Your task to perform on an android device: open app "Adobe Acrobat Reader" Image 0: 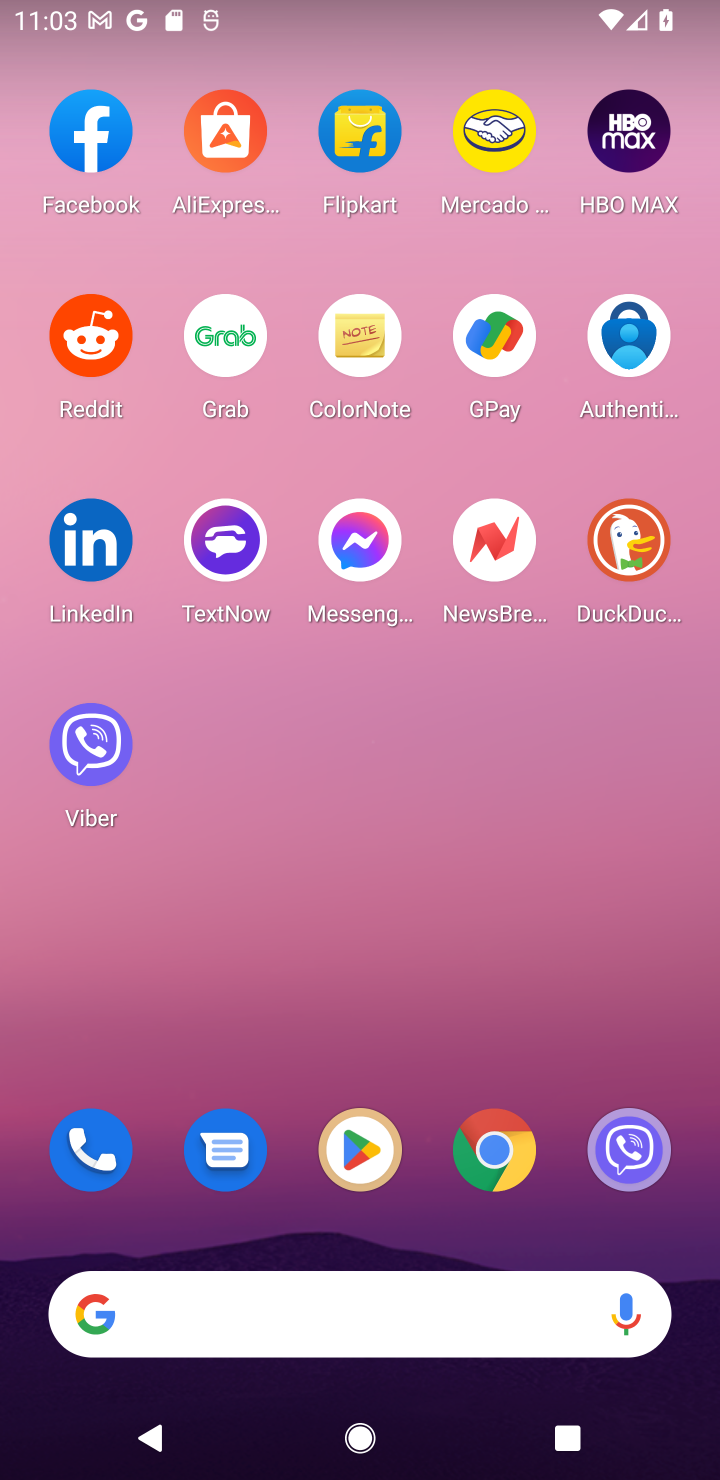
Step 0: click (358, 1100)
Your task to perform on an android device: open app "Adobe Acrobat Reader" Image 1: 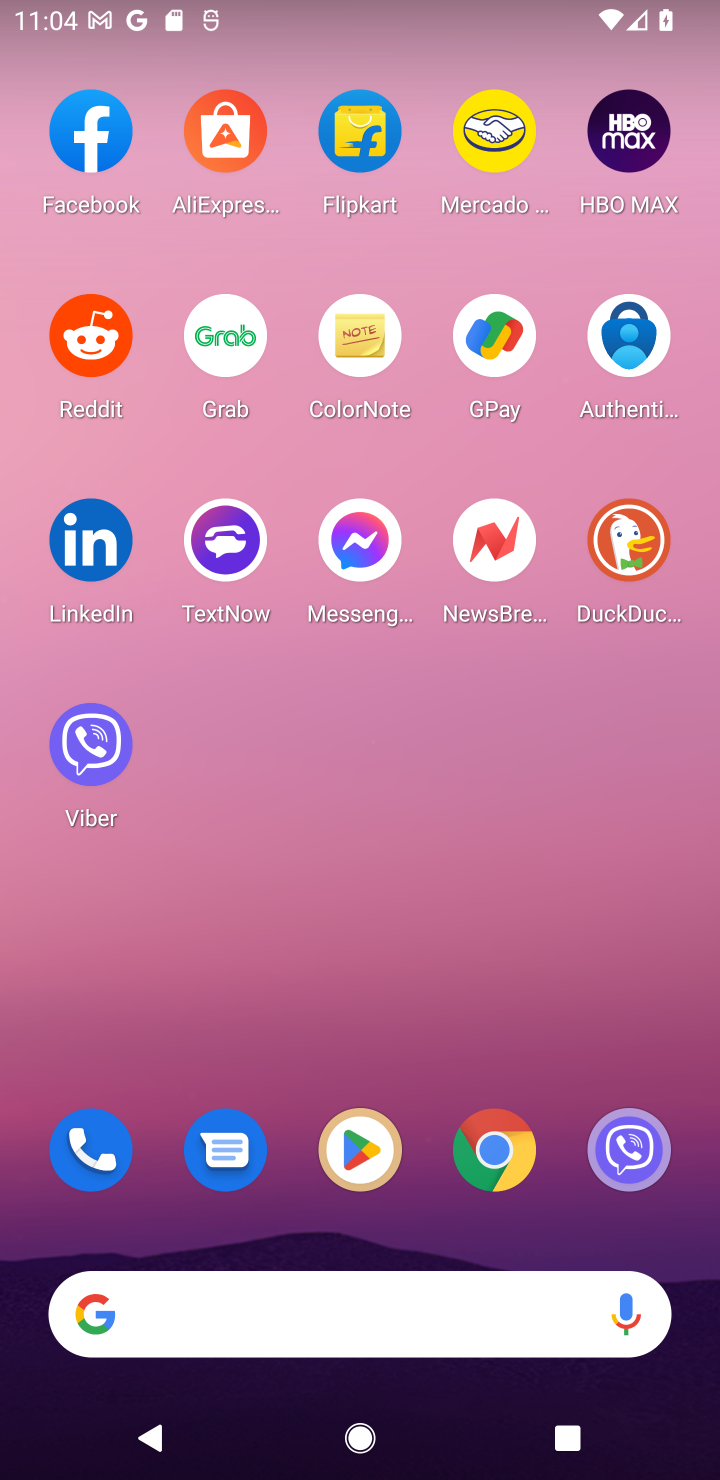
Step 1: click (358, 1139)
Your task to perform on an android device: open app "Adobe Acrobat Reader" Image 2: 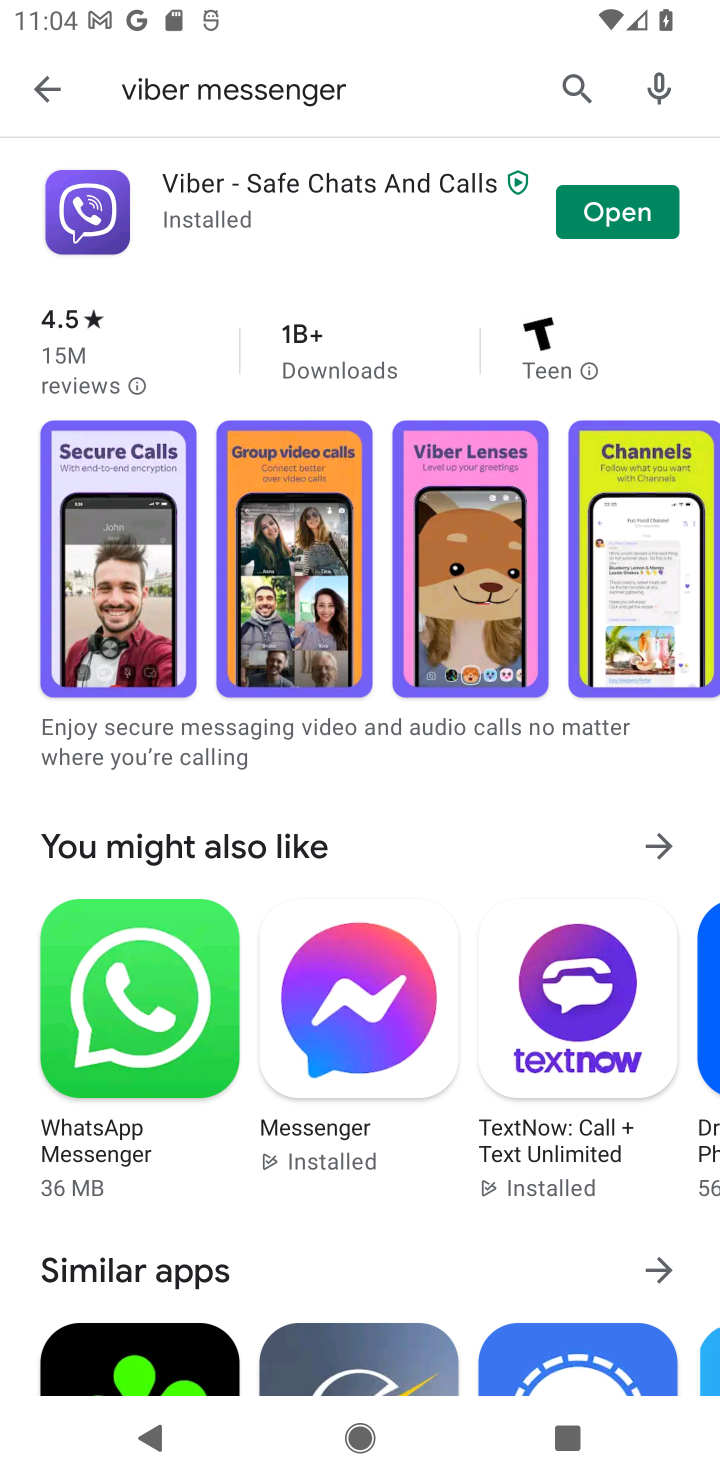
Step 2: click (569, 91)
Your task to perform on an android device: open app "Adobe Acrobat Reader" Image 3: 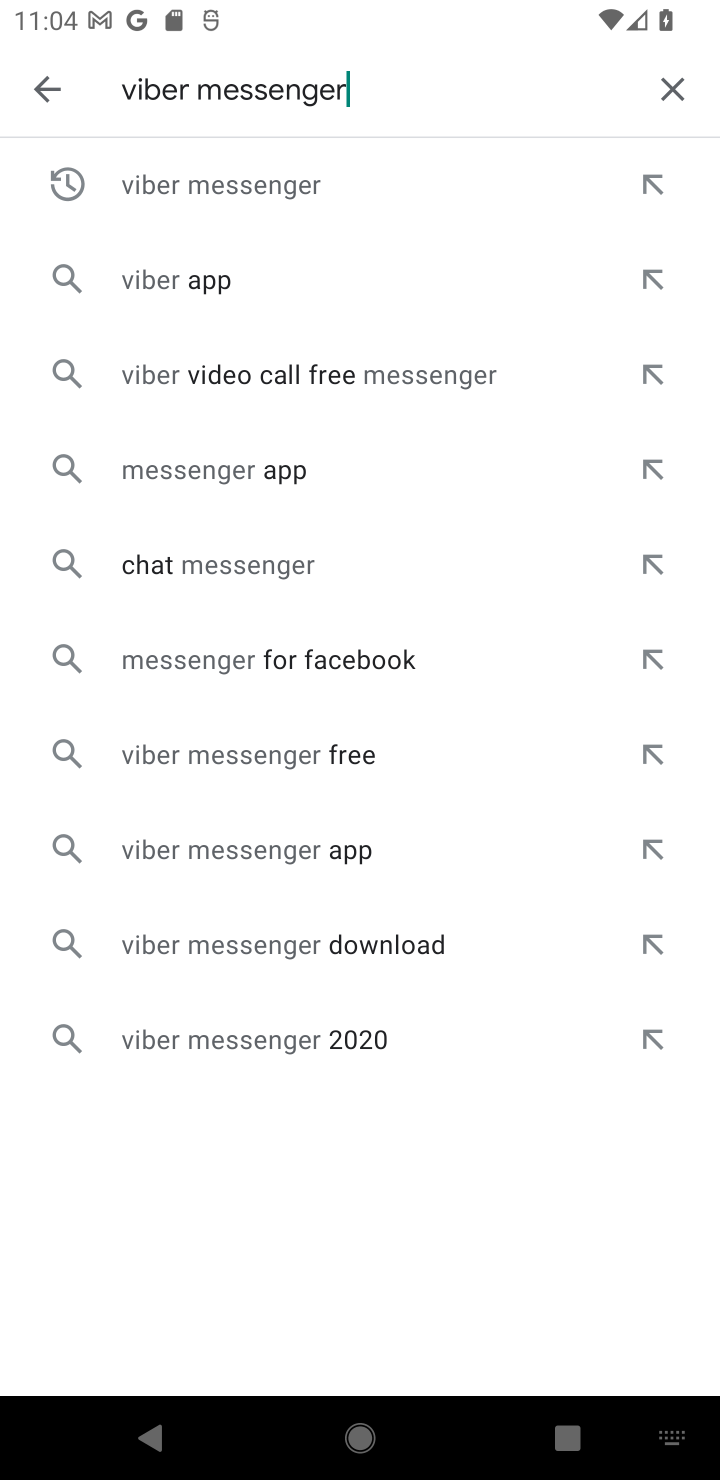
Step 3: click (664, 86)
Your task to perform on an android device: open app "Adobe Acrobat Reader" Image 4: 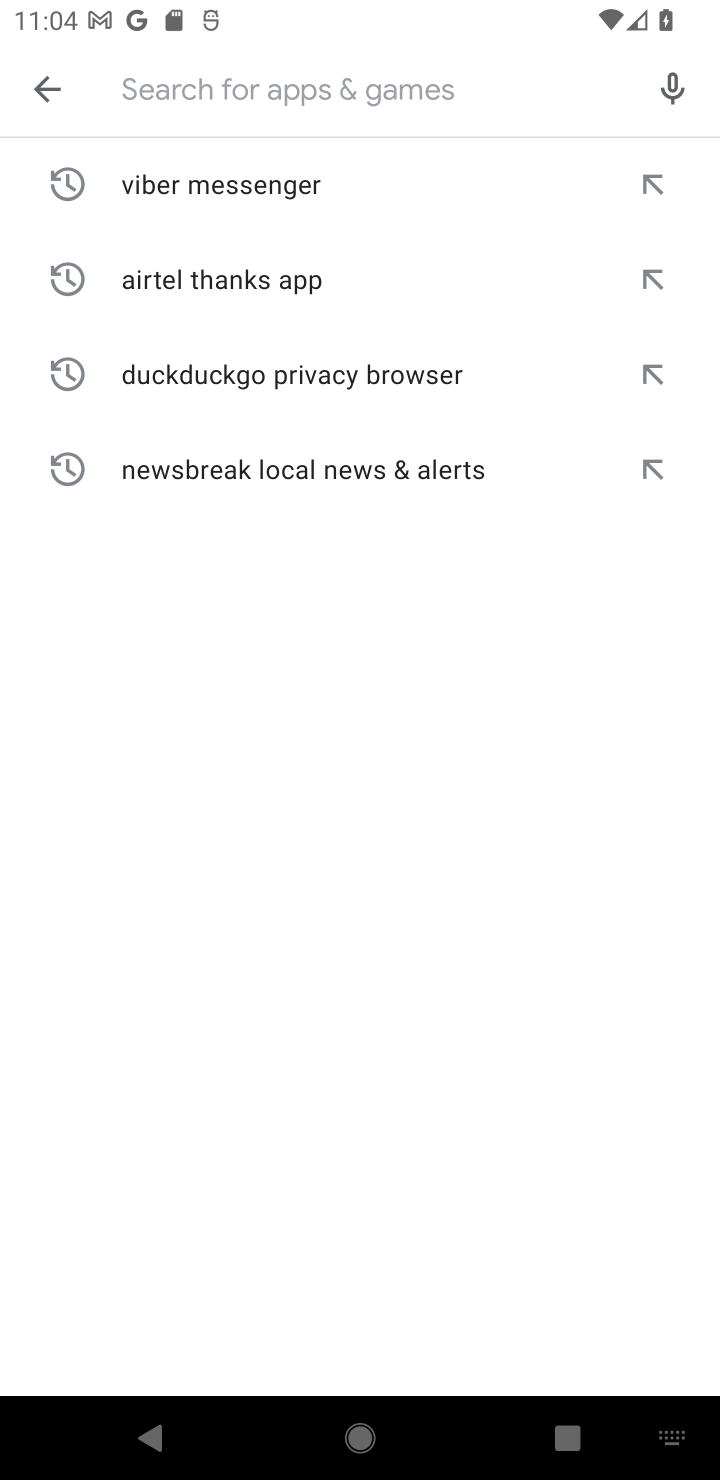
Step 4: type "Adobe Acrobat Reader"
Your task to perform on an android device: open app "Adobe Acrobat Reader" Image 5: 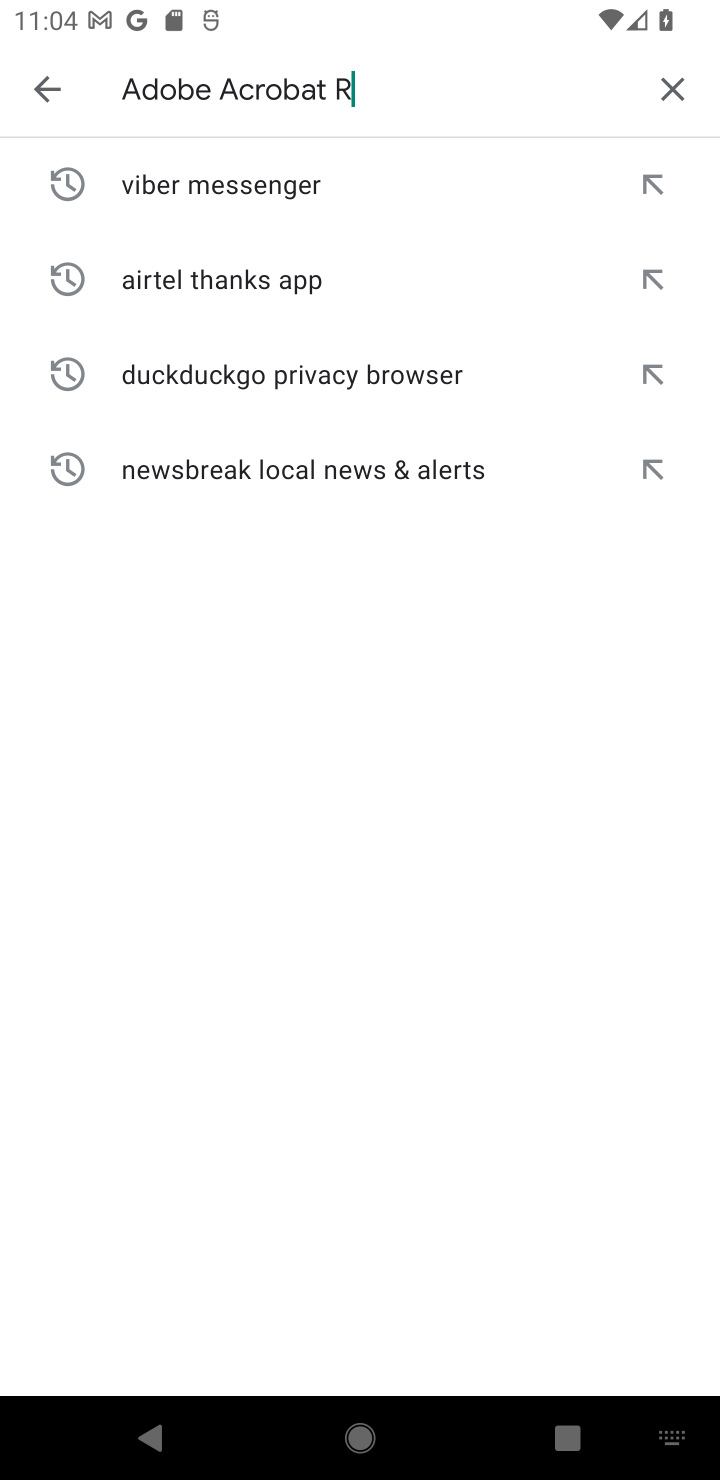
Step 5: type ""
Your task to perform on an android device: open app "Adobe Acrobat Reader" Image 6: 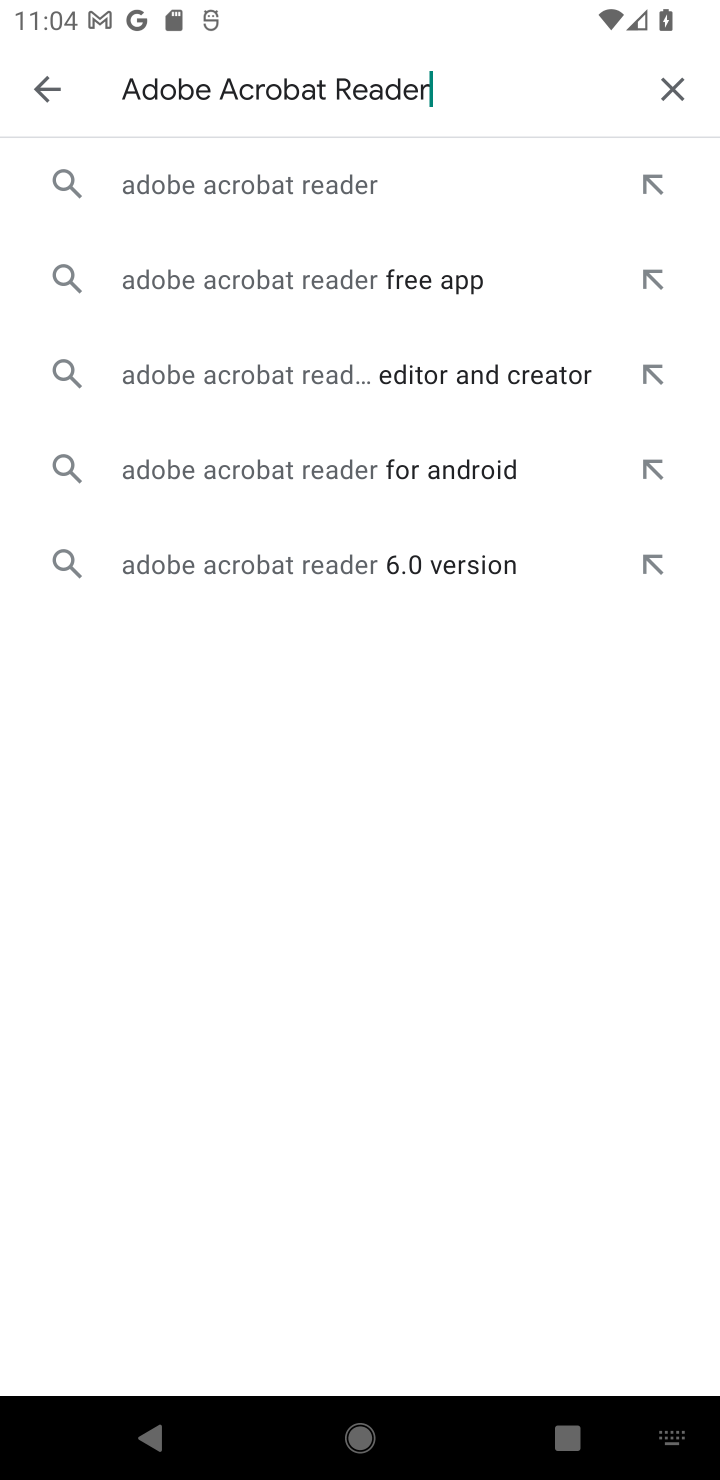
Step 6: click (325, 186)
Your task to perform on an android device: open app "Adobe Acrobat Reader" Image 7: 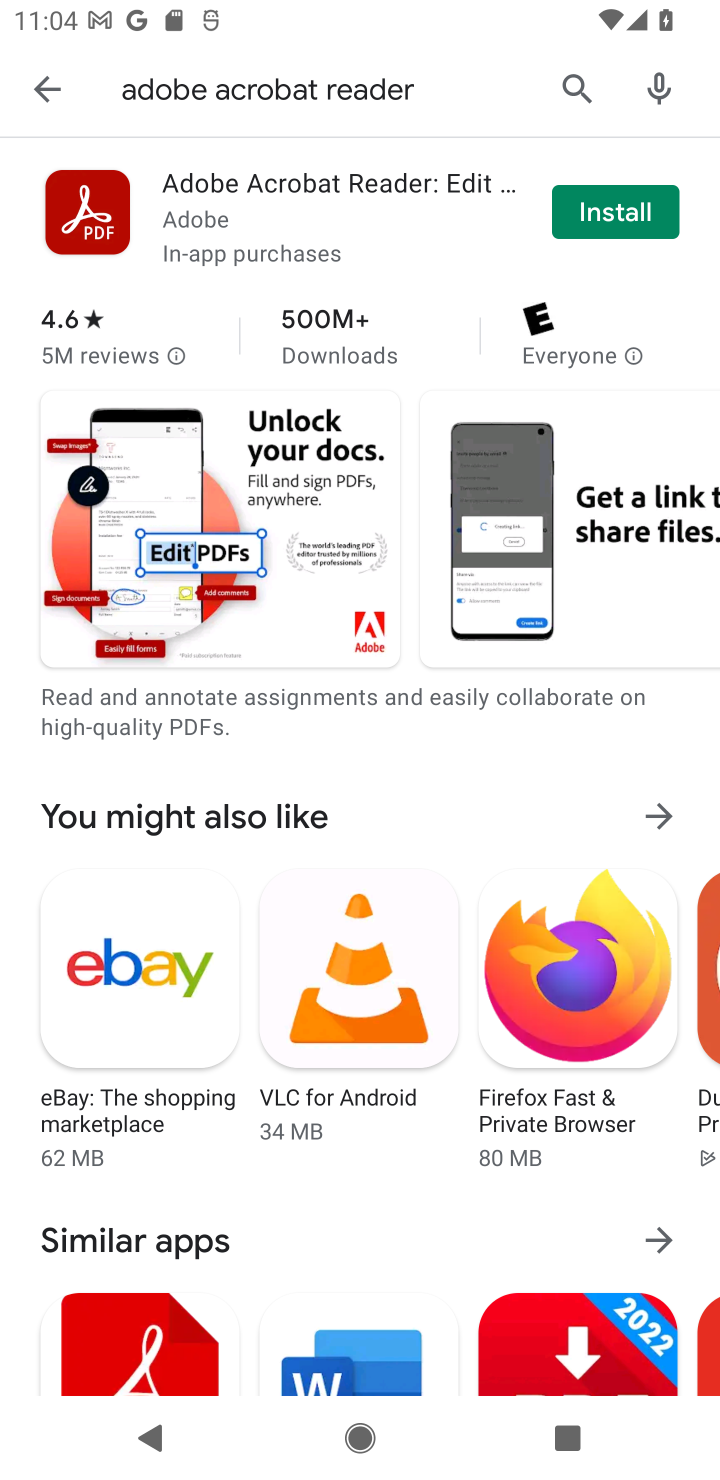
Step 7: task complete